Your task to perform on an android device: Open Google Chrome and click the shortcut for Amazon.com Image 0: 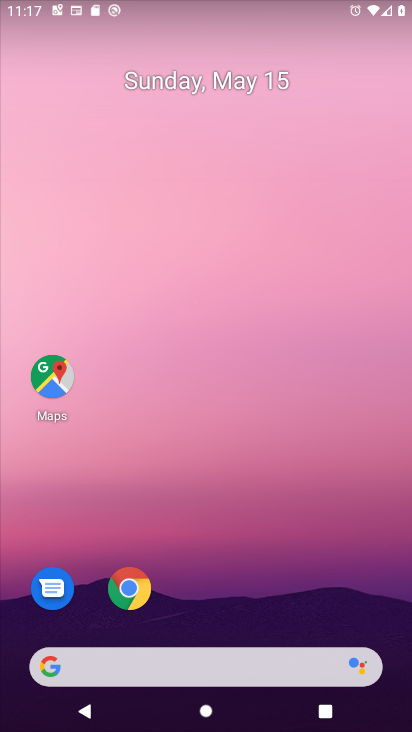
Step 0: click (130, 590)
Your task to perform on an android device: Open Google Chrome and click the shortcut for Amazon.com Image 1: 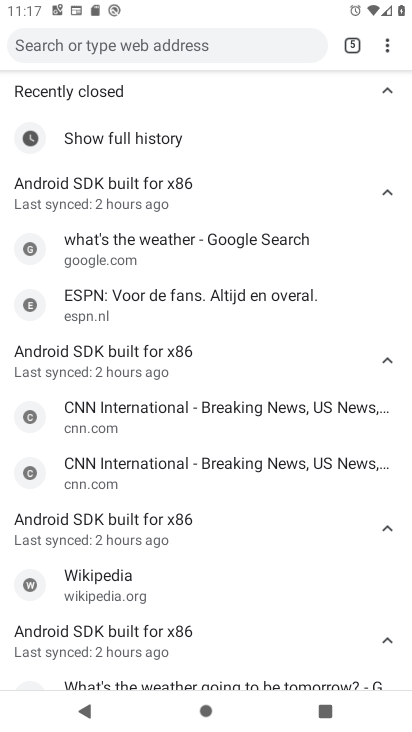
Step 1: click (354, 41)
Your task to perform on an android device: Open Google Chrome and click the shortcut for Amazon.com Image 2: 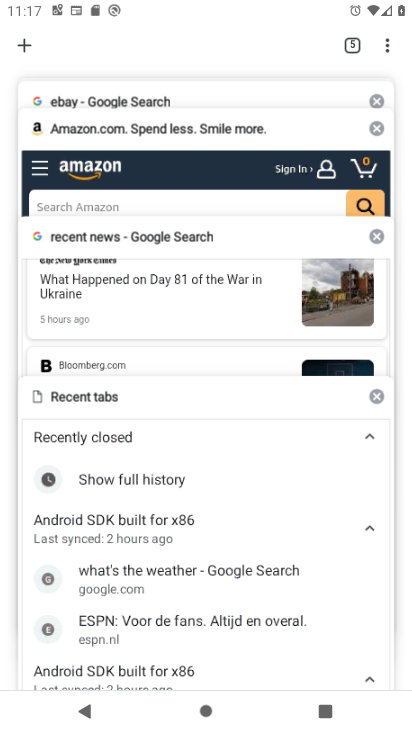
Step 2: click (112, 178)
Your task to perform on an android device: Open Google Chrome and click the shortcut for Amazon.com Image 3: 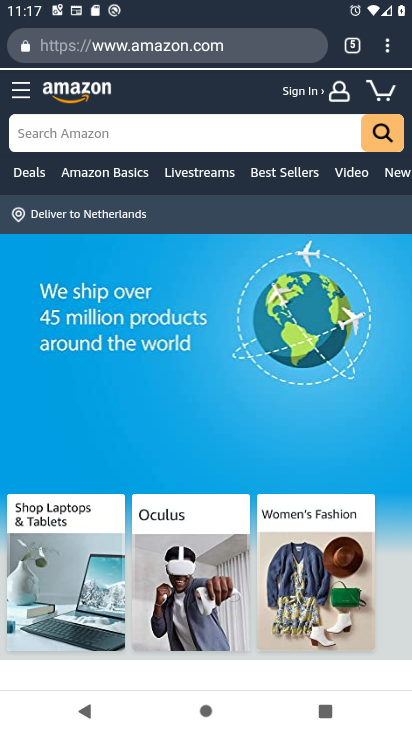
Step 3: task complete